Your task to perform on an android device: Open Amazon Image 0: 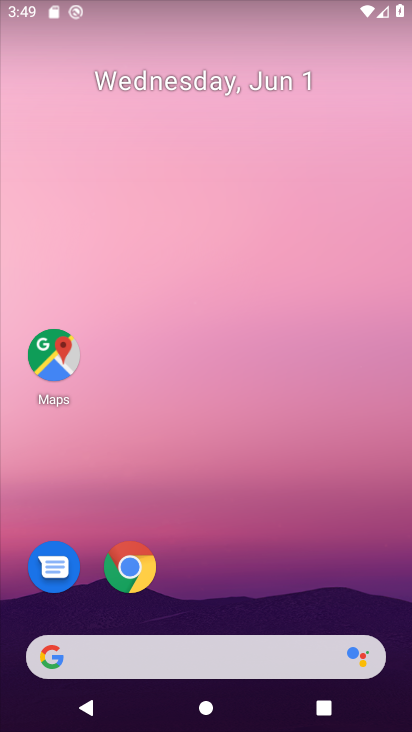
Step 0: click (128, 566)
Your task to perform on an android device: Open Amazon Image 1: 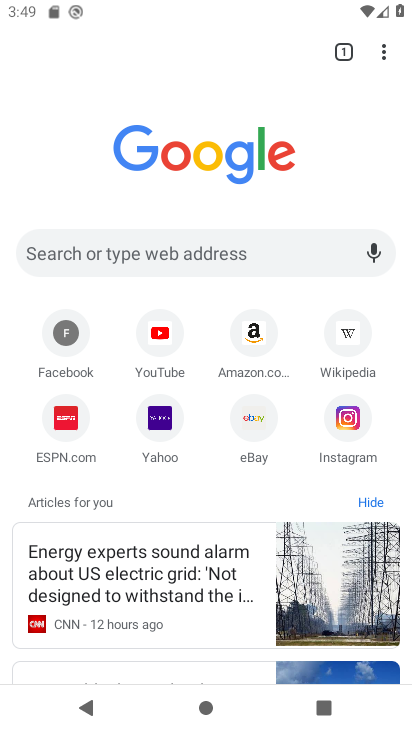
Step 1: click (257, 338)
Your task to perform on an android device: Open Amazon Image 2: 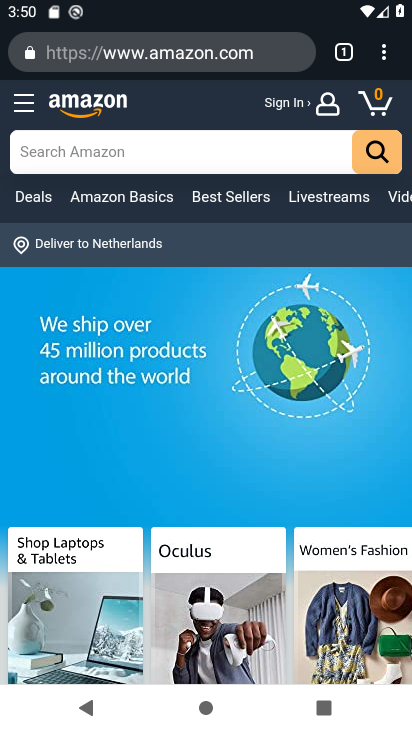
Step 2: task complete